Your task to perform on an android device: Show the shopping cart on bestbuy. Add "rayovac triple a" to the cart on bestbuy Image 0: 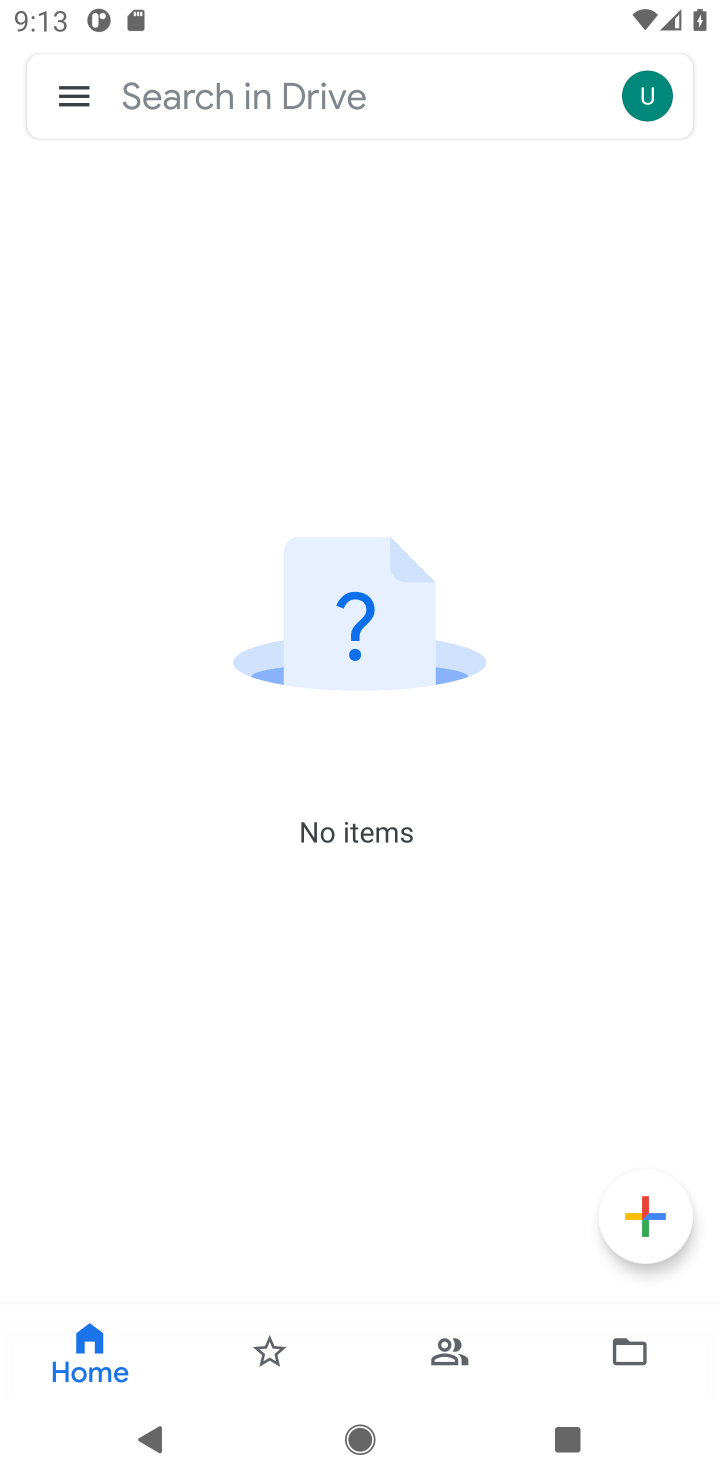
Step 0: press home button
Your task to perform on an android device: Show the shopping cart on bestbuy. Add "rayovac triple a" to the cart on bestbuy Image 1: 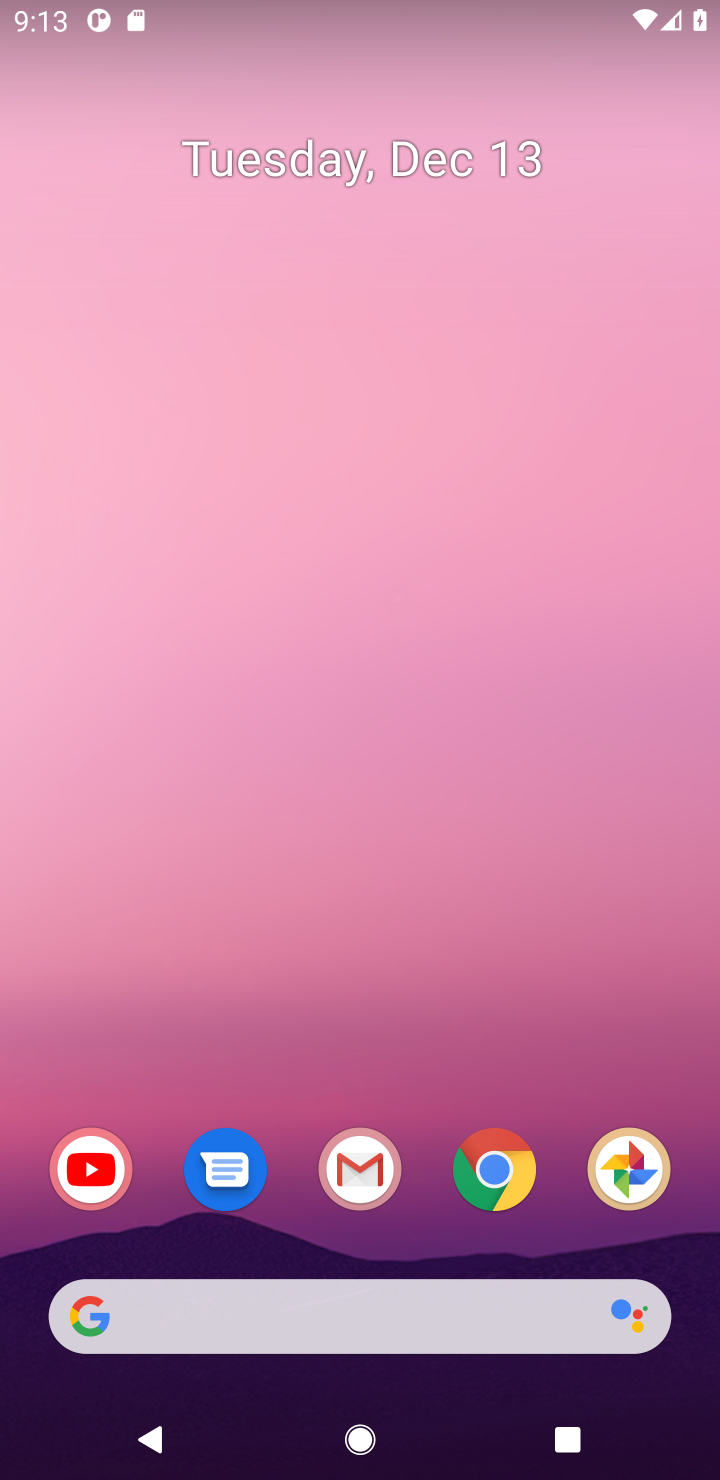
Step 1: click (490, 1181)
Your task to perform on an android device: Show the shopping cart on bestbuy. Add "rayovac triple a" to the cart on bestbuy Image 2: 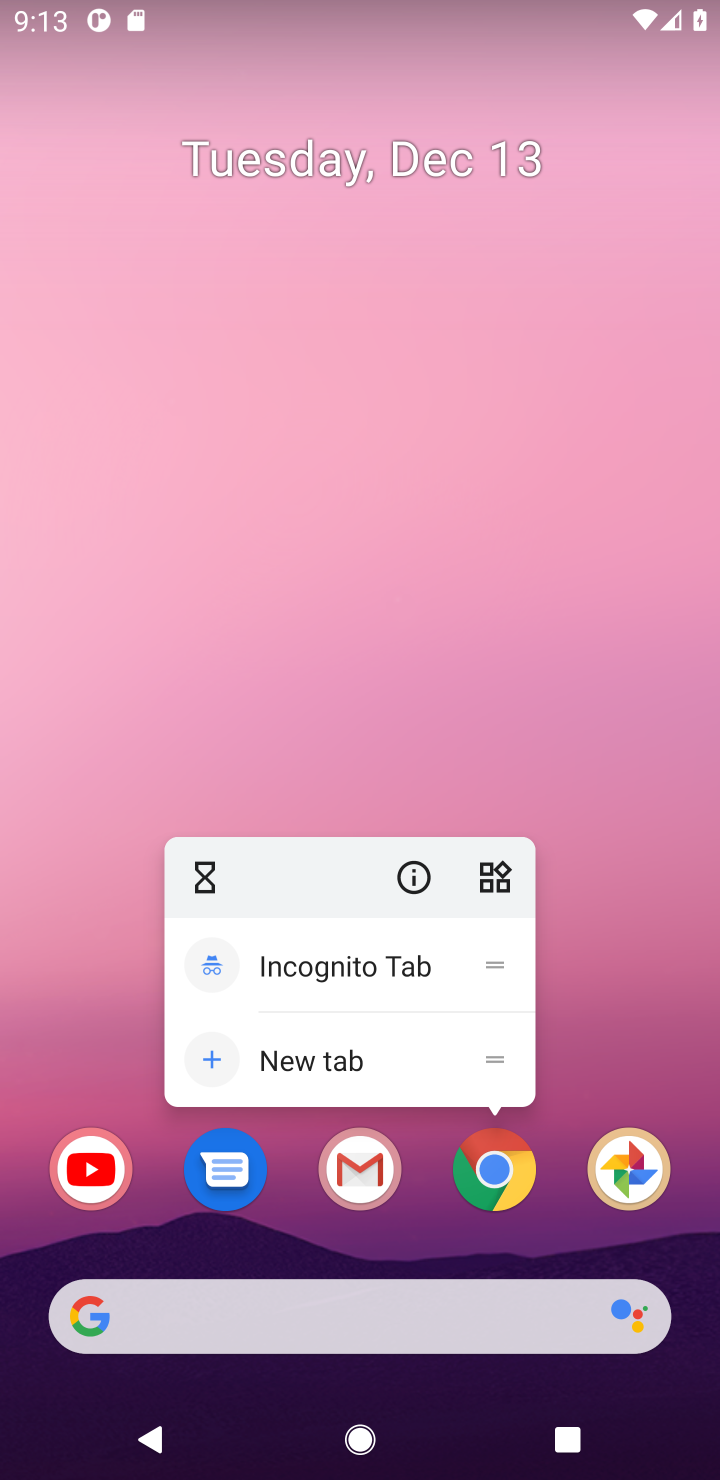
Step 2: click (486, 1160)
Your task to perform on an android device: Show the shopping cart on bestbuy. Add "rayovac triple a" to the cart on bestbuy Image 3: 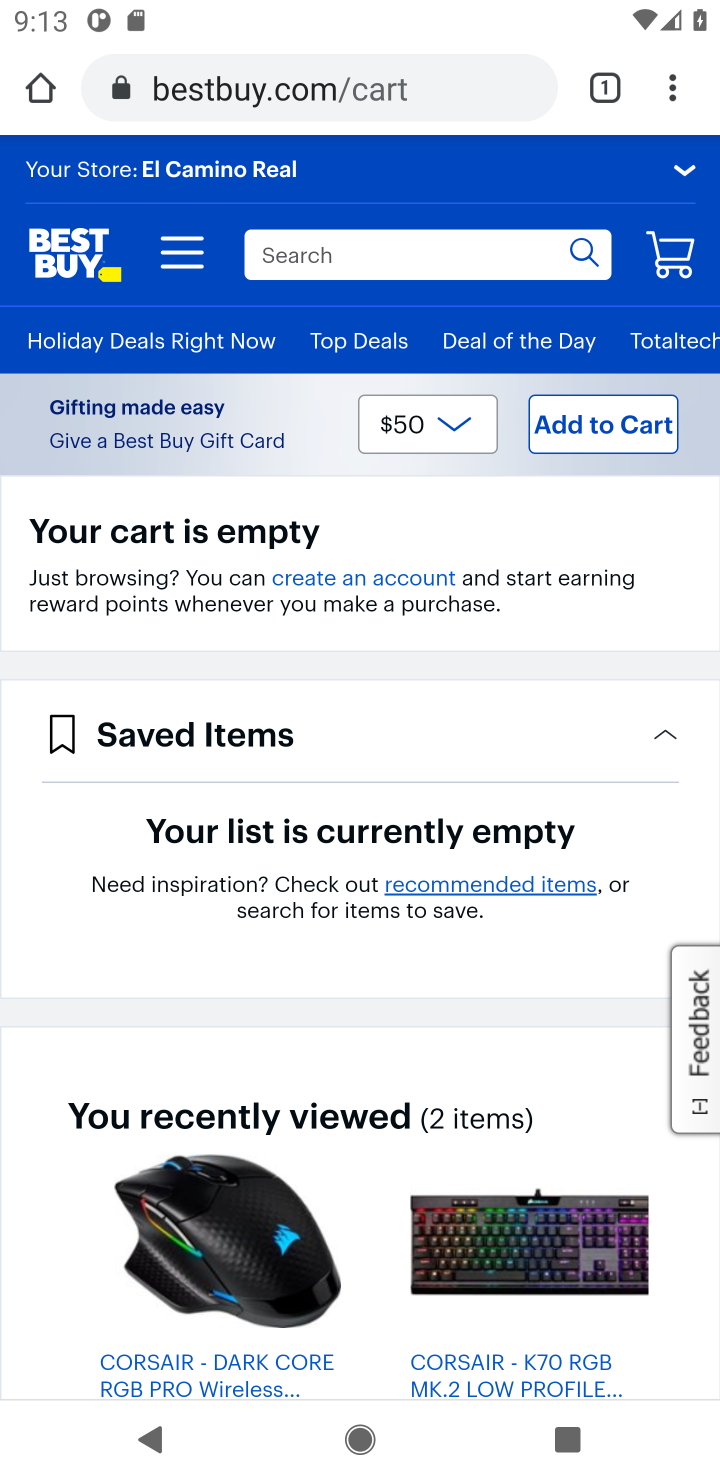
Step 3: click (370, 270)
Your task to perform on an android device: Show the shopping cart on bestbuy. Add "rayovac triple a" to the cart on bestbuy Image 4: 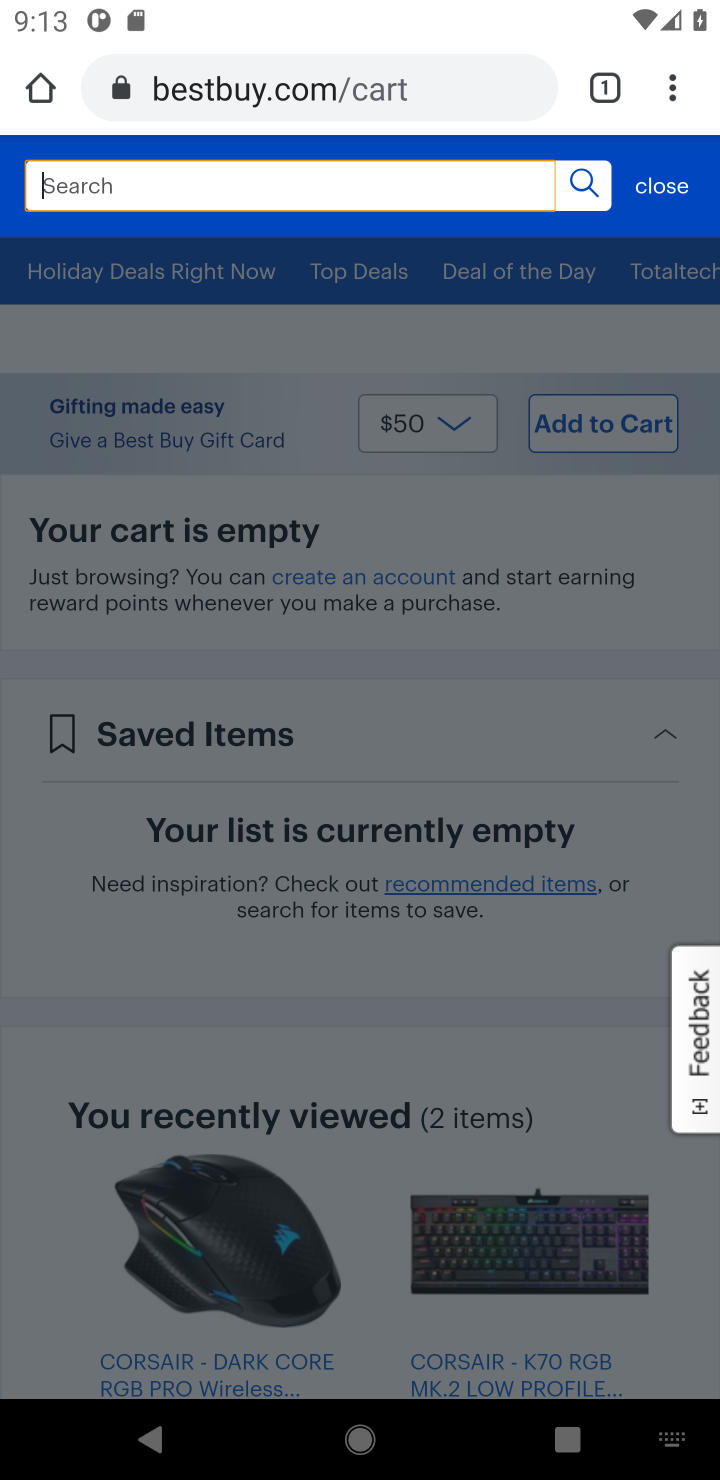
Step 4: type "rayovac"
Your task to perform on an android device: Show the shopping cart on bestbuy. Add "rayovac triple a" to the cart on bestbuy Image 5: 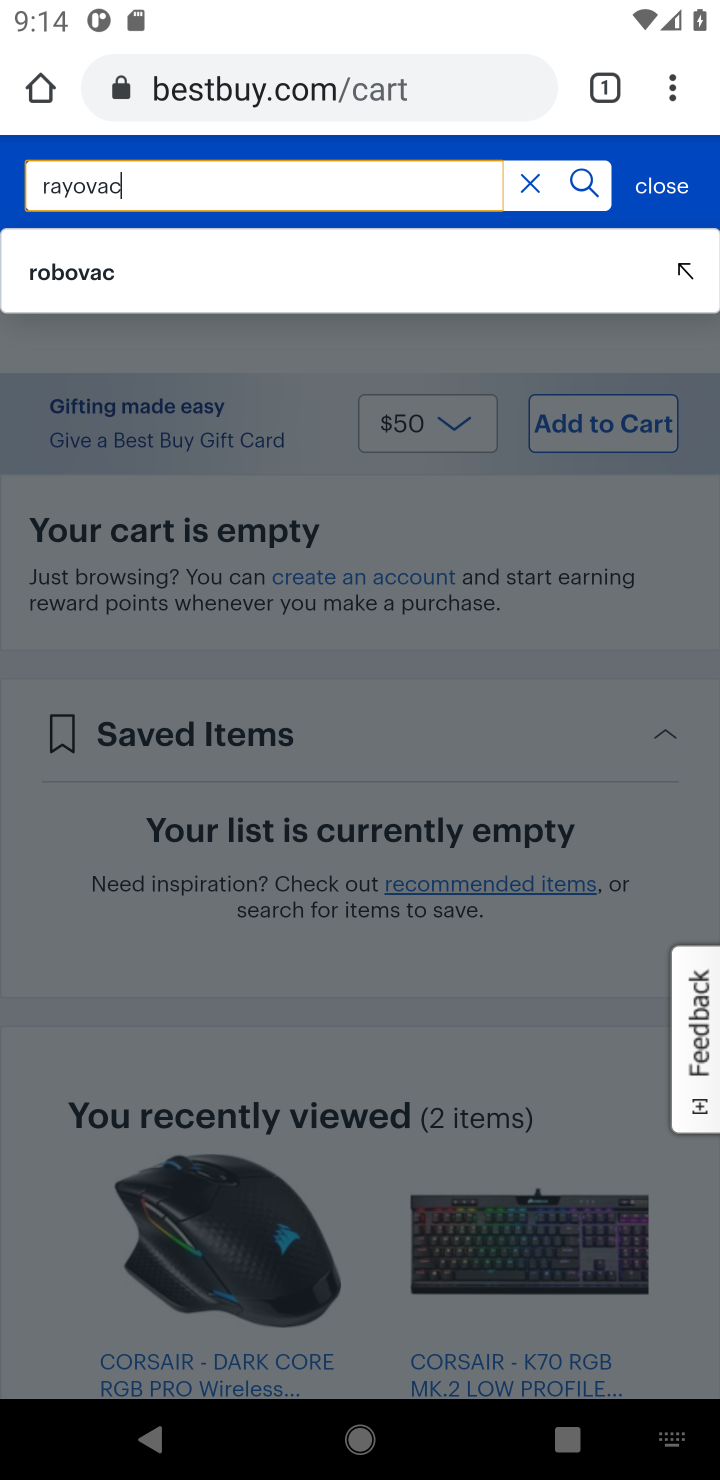
Step 5: click (93, 297)
Your task to perform on an android device: Show the shopping cart on bestbuy. Add "rayovac triple a" to the cart on bestbuy Image 6: 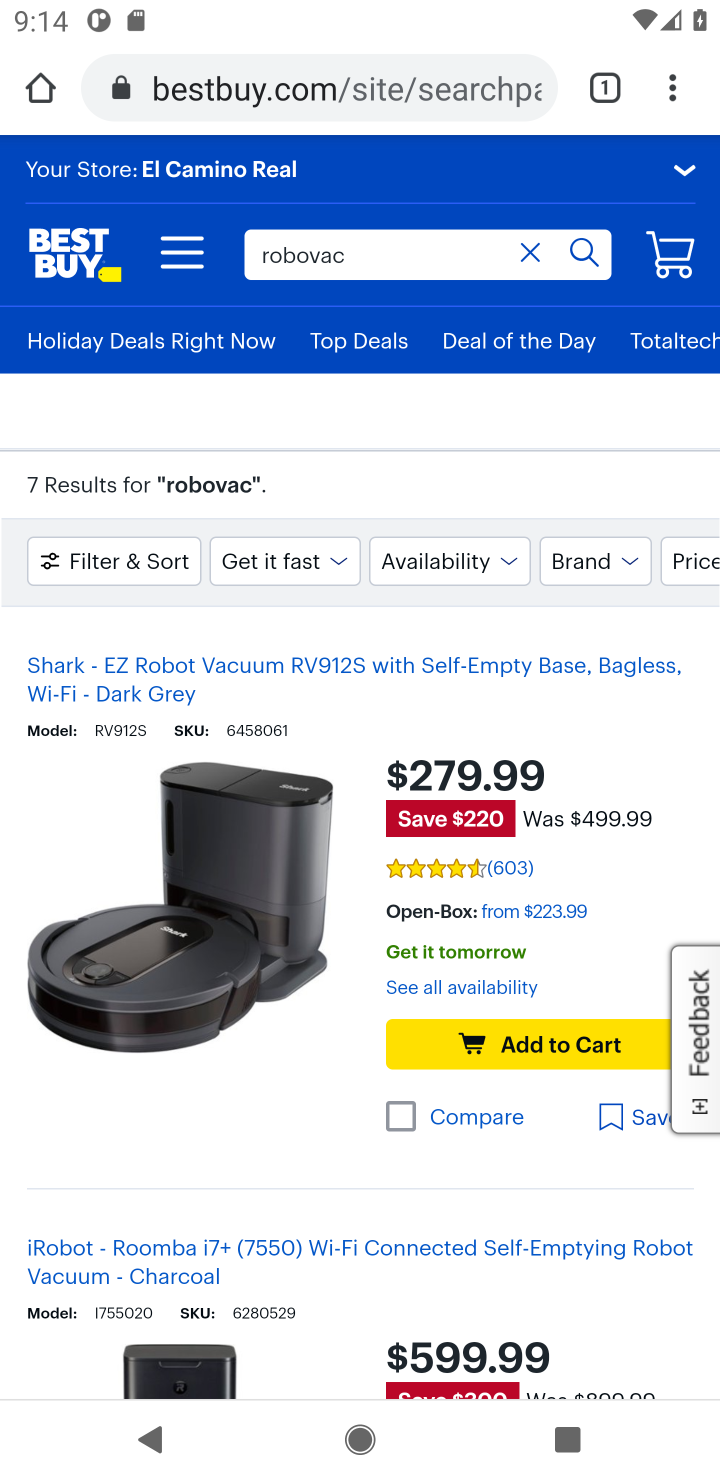
Step 6: click (445, 1025)
Your task to perform on an android device: Show the shopping cart on bestbuy. Add "rayovac triple a" to the cart on bestbuy Image 7: 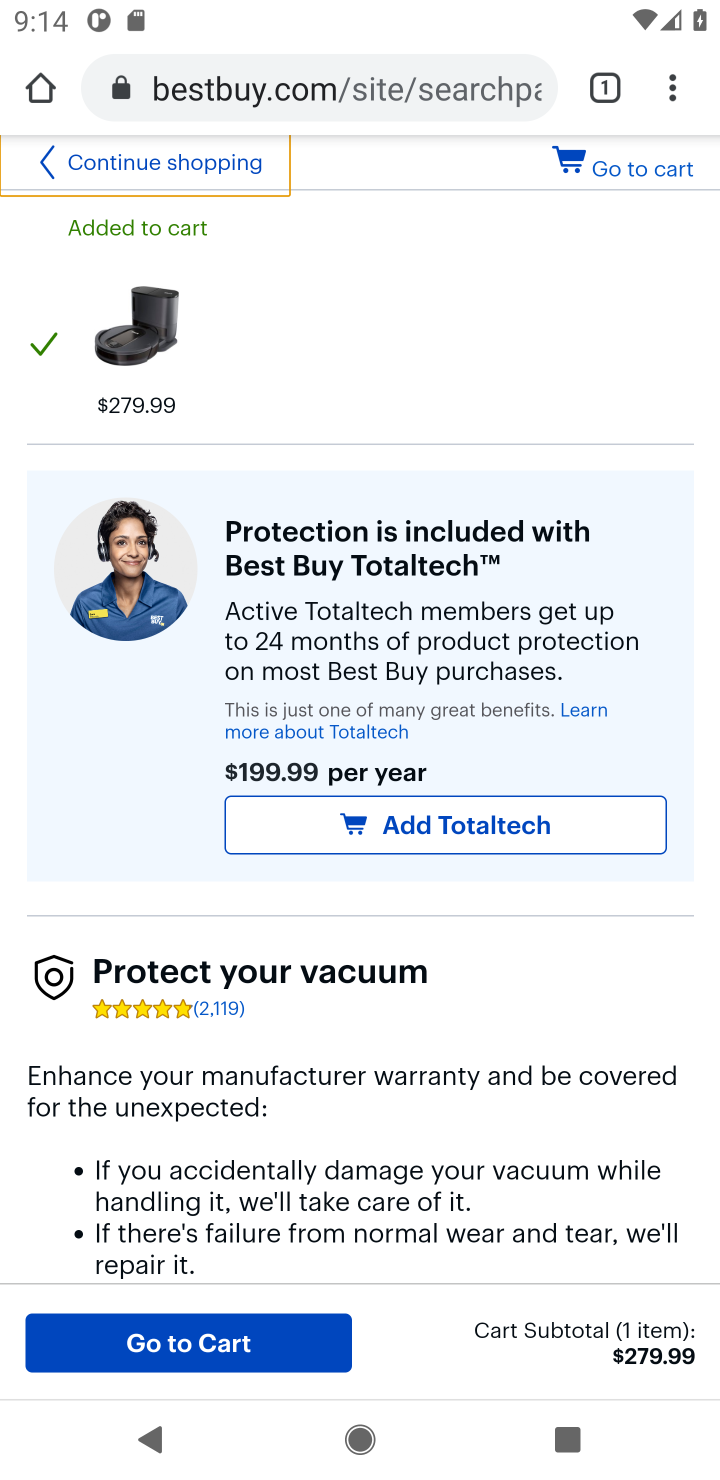
Step 7: task complete